Your task to perform on an android device: turn on showing notifications on the lock screen Image 0: 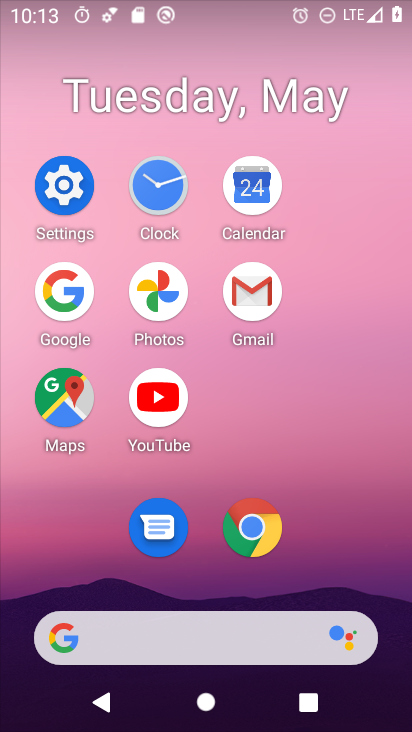
Step 0: click (68, 195)
Your task to perform on an android device: turn on showing notifications on the lock screen Image 1: 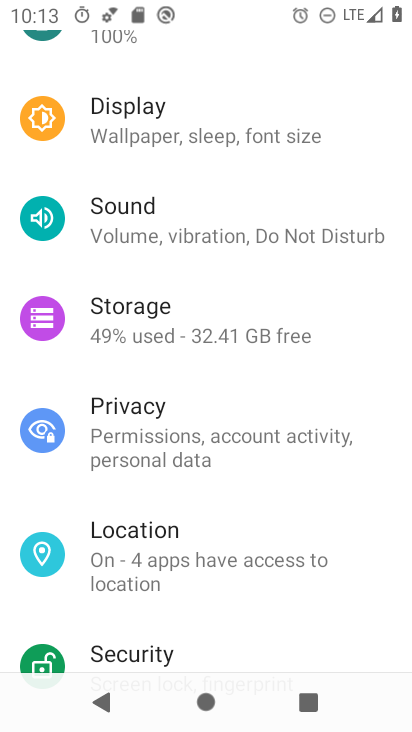
Step 1: drag from (248, 229) to (249, 621)
Your task to perform on an android device: turn on showing notifications on the lock screen Image 2: 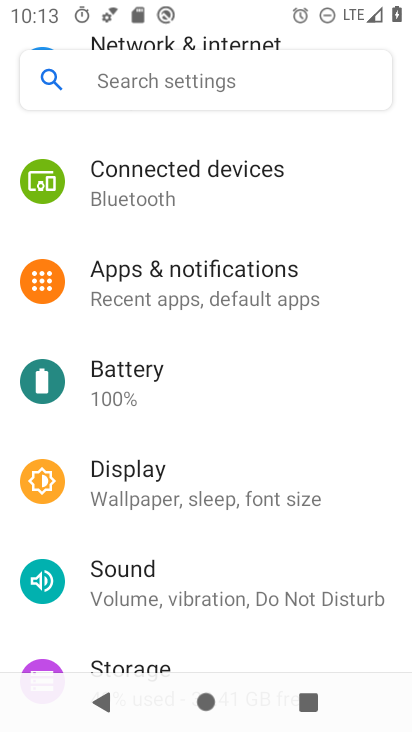
Step 2: click (246, 248)
Your task to perform on an android device: turn on showing notifications on the lock screen Image 3: 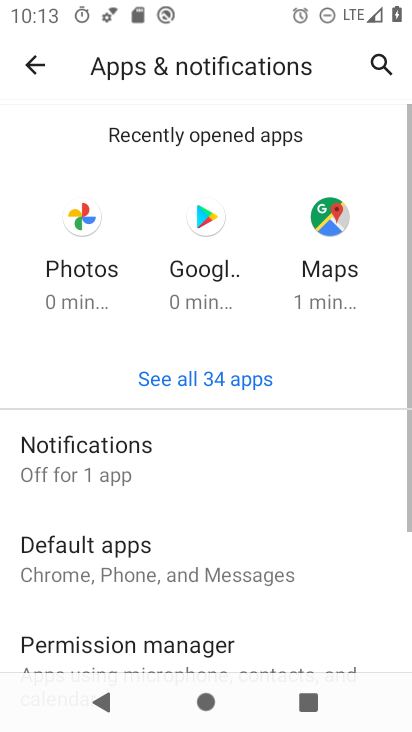
Step 3: click (111, 481)
Your task to perform on an android device: turn on showing notifications on the lock screen Image 4: 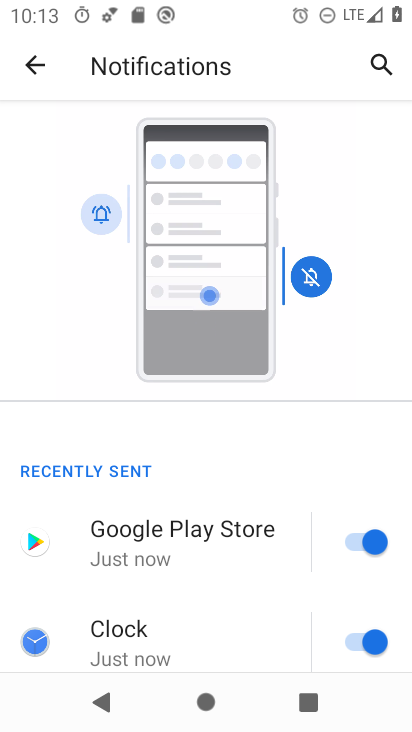
Step 4: drag from (259, 620) to (207, 237)
Your task to perform on an android device: turn on showing notifications on the lock screen Image 5: 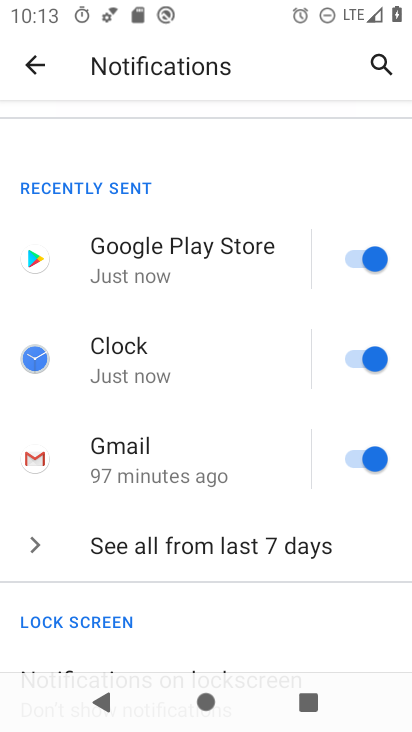
Step 5: drag from (236, 608) to (229, 194)
Your task to perform on an android device: turn on showing notifications on the lock screen Image 6: 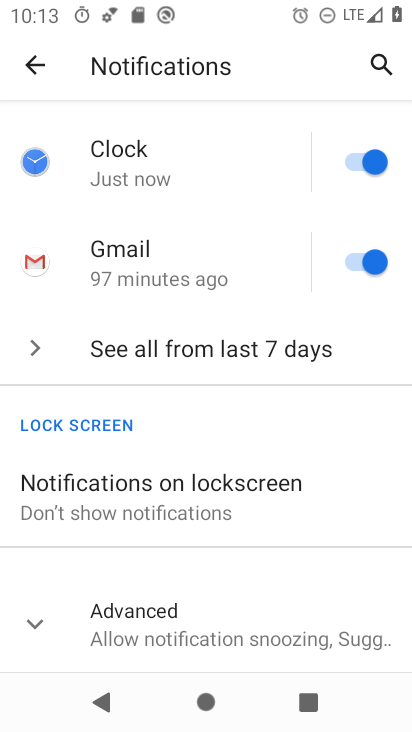
Step 6: click (154, 498)
Your task to perform on an android device: turn on showing notifications on the lock screen Image 7: 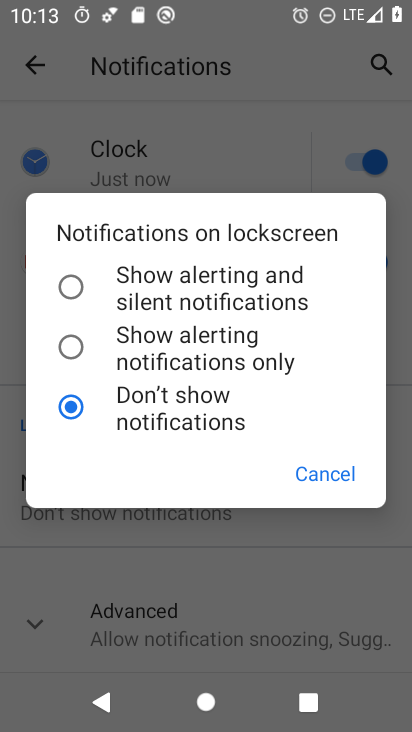
Step 7: click (212, 281)
Your task to perform on an android device: turn on showing notifications on the lock screen Image 8: 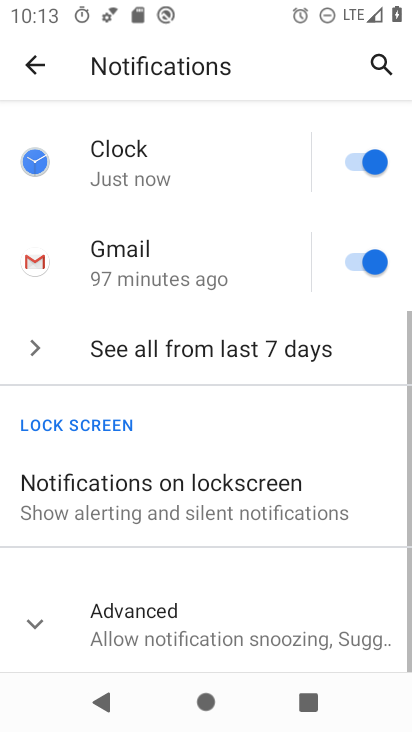
Step 8: task complete